Your task to perform on an android device: change the clock style Image 0: 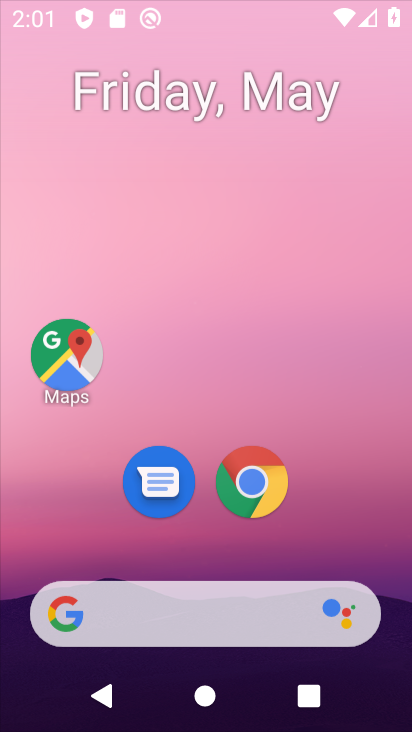
Step 0: click (238, 472)
Your task to perform on an android device: change the clock style Image 1: 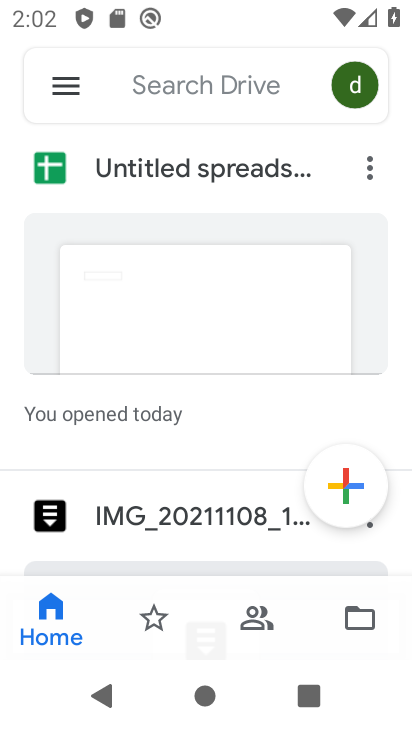
Step 1: press back button
Your task to perform on an android device: change the clock style Image 2: 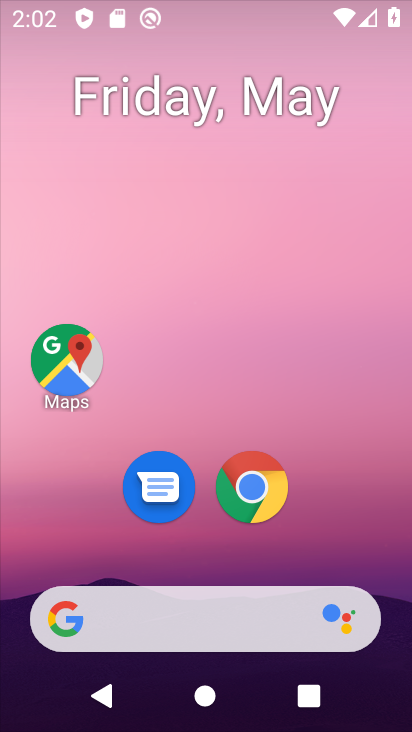
Step 2: drag from (170, 467) to (230, 48)
Your task to perform on an android device: change the clock style Image 3: 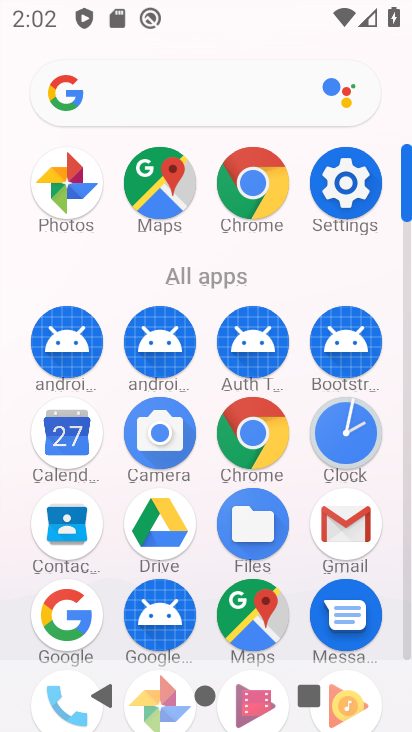
Step 3: click (348, 450)
Your task to perform on an android device: change the clock style Image 4: 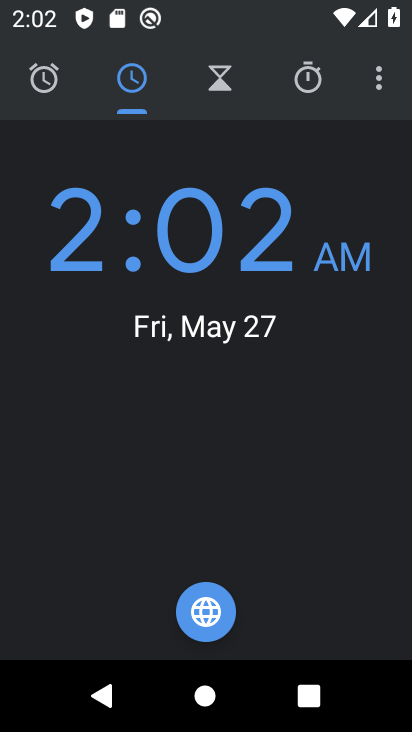
Step 4: click (384, 70)
Your task to perform on an android device: change the clock style Image 5: 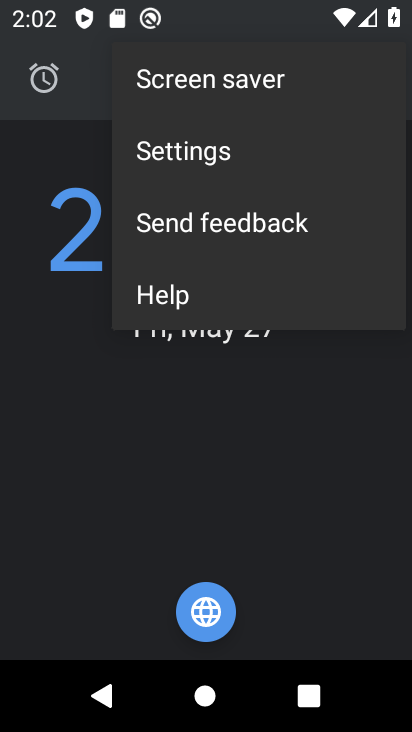
Step 5: click (189, 161)
Your task to perform on an android device: change the clock style Image 6: 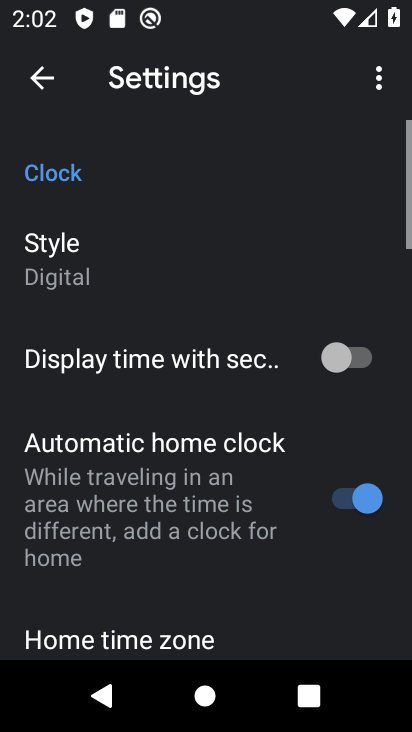
Step 6: click (57, 299)
Your task to perform on an android device: change the clock style Image 7: 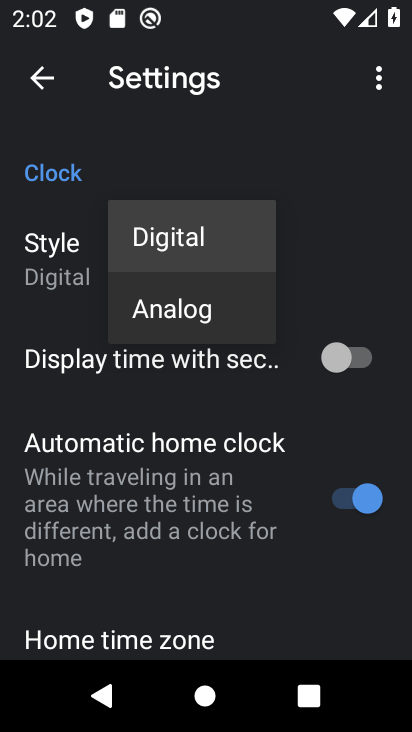
Step 7: click (179, 323)
Your task to perform on an android device: change the clock style Image 8: 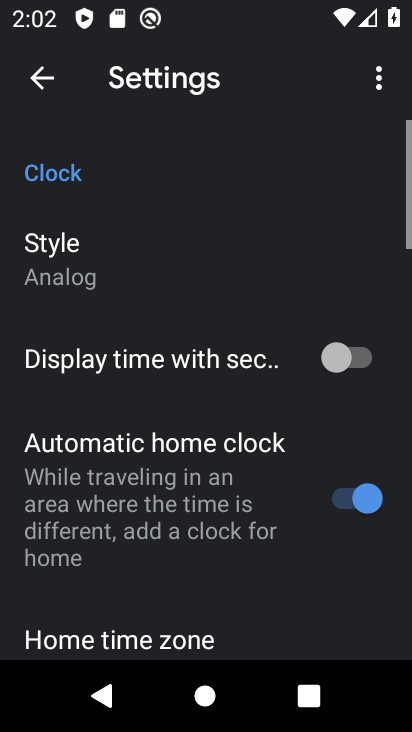
Step 8: task complete